Your task to perform on an android device: delete a single message in the gmail app Image 0: 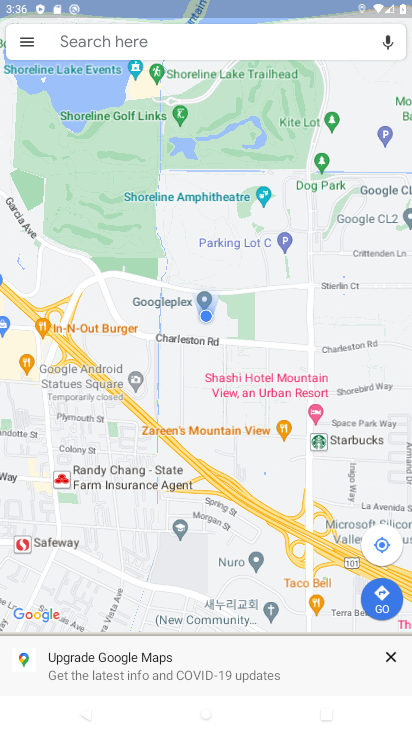
Step 0: press home button
Your task to perform on an android device: delete a single message in the gmail app Image 1: 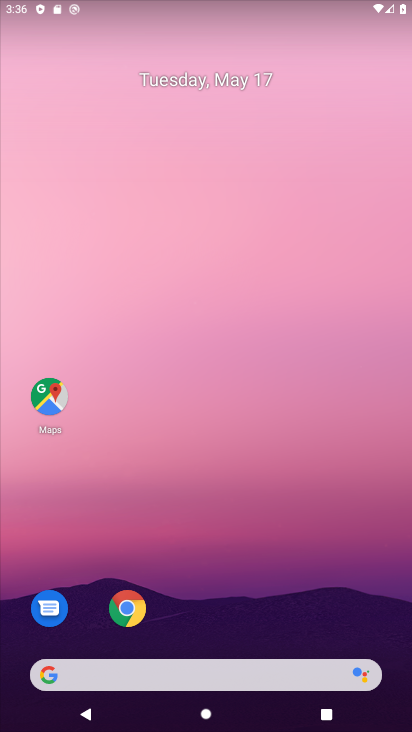
Step 1: drag from (221, 653) to (241, 307)
Your task to perform on an android device: delete a single message in the gmail app Image 2: 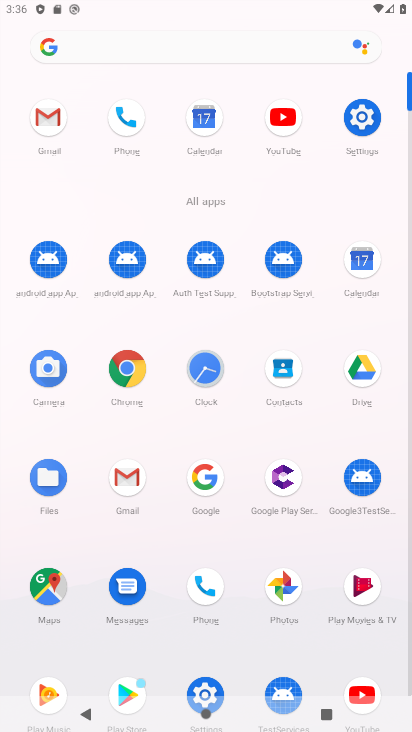
Step 2: click (134, 483)
Your task to perform on an android device: delete a single message in the gmail app Image 3: 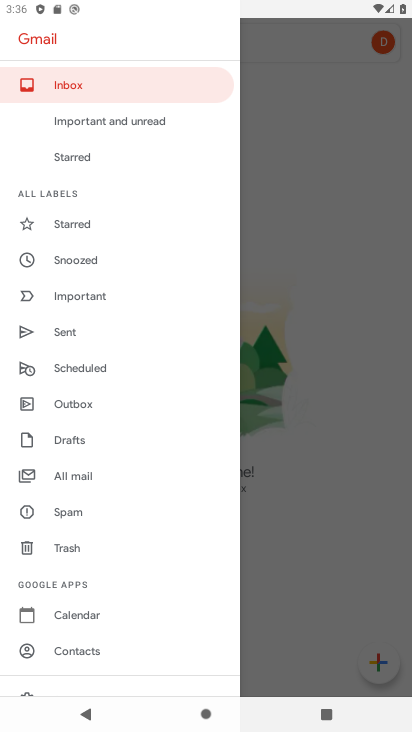
Step 3: click (358, 382)
Your task to perform on an android device: delete a single message in the gmail app Image 4: 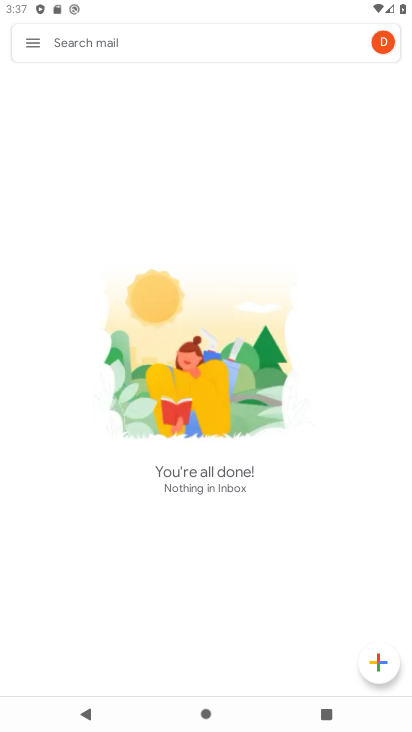
Step 4: task complete